Your task to perform on an android device: turn on translation in the chrome app Image 0: 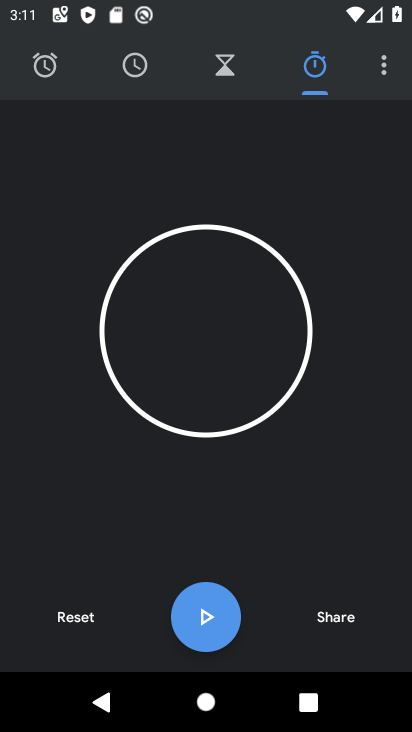
Step 0: press home button
Your task to perform on an android device: turn on translation in the chrome app Image 1: 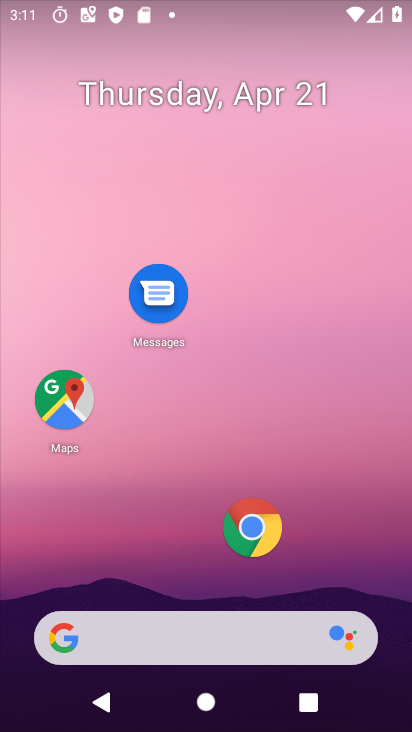
Step 1: click (258, 537)
Your task to perform on an android device: turn on translation in the chrome app Image 2: 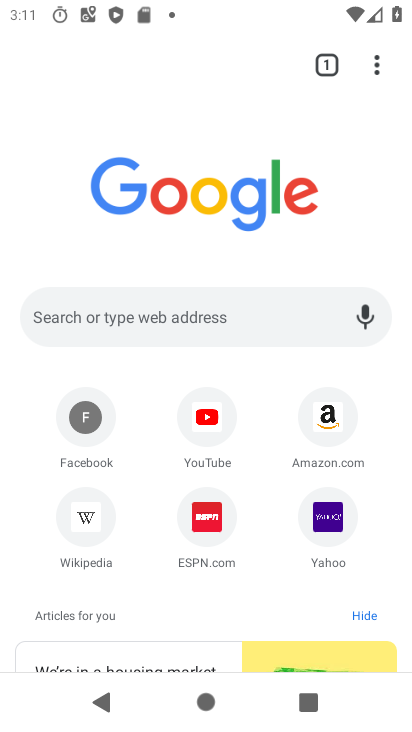
Step 2: click (379, 61)
Your task to perform on an android device: turn on translation in the chrome app Image 3: 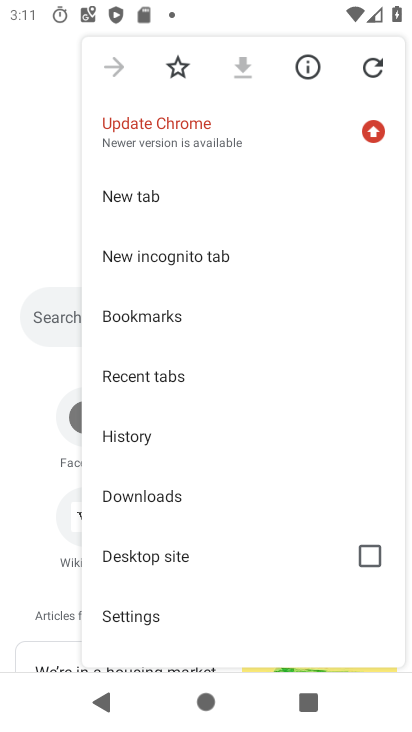
Step 3: click (147, 618)
Your task to perform on an android device: turn on translation in the chrome app Image 4: 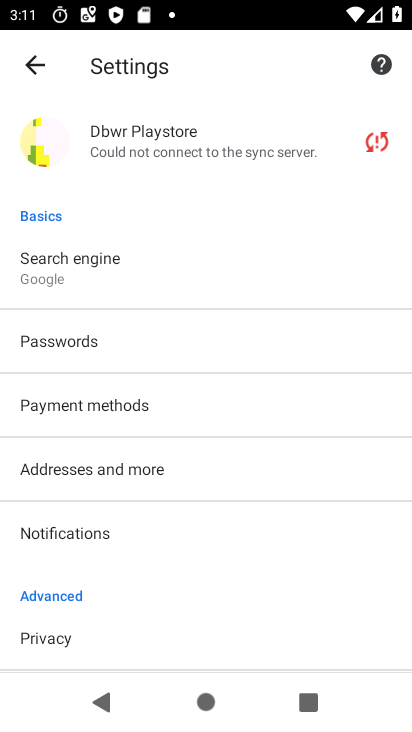
Step 4: drag from (163, 598) to (178, 309)
Your task to perform on an android device: turn on translation in the chrome app Image 5: 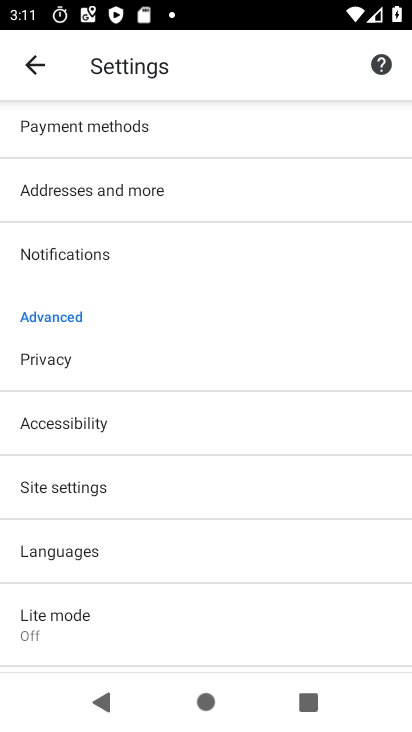
Step 5: click (71, 489)
Your task to perform on an android device: turn on translation in the chrome app Image 6: 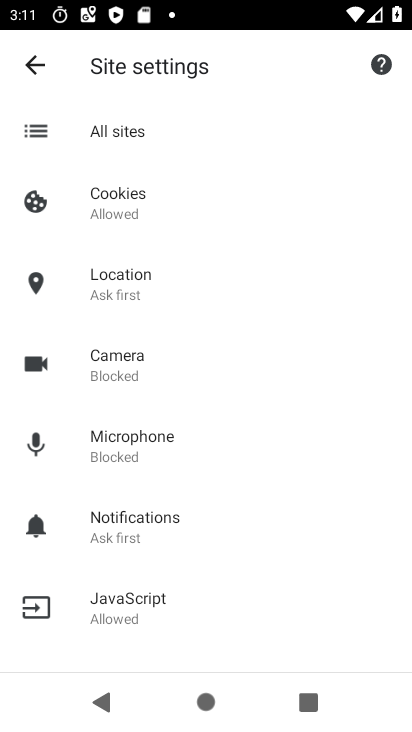
Step 6: press back button
Your task to perform on an android device: turn on translation in the chrome app Image 7: 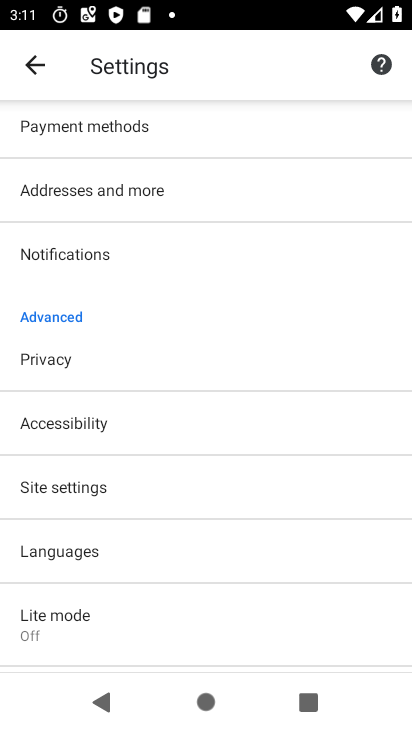
Step 7: click (74, 555)
Your task to perform on an android device: turn on translation in the chrome app Image 8: 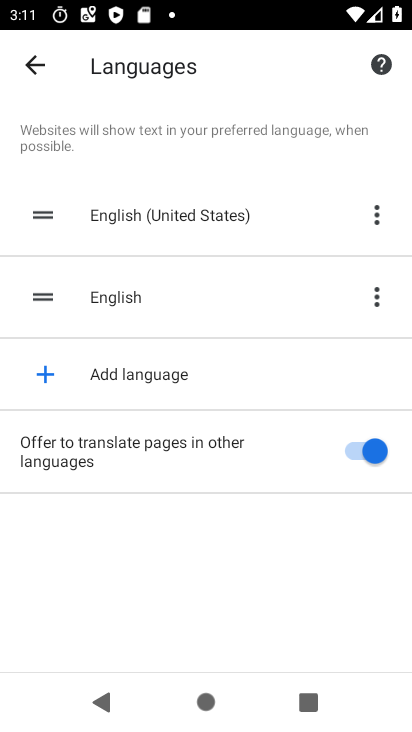
Step 8: task complete